Your task to perform on an android device: Go to Wikipedia Image 0: 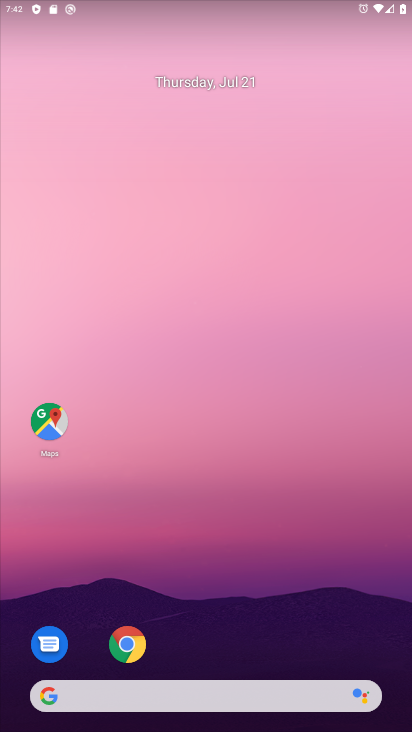
Step 0: drag from (348, 581) to (364, 154)
Your task to perform on an android device: Go to Wikipedia Image 1: 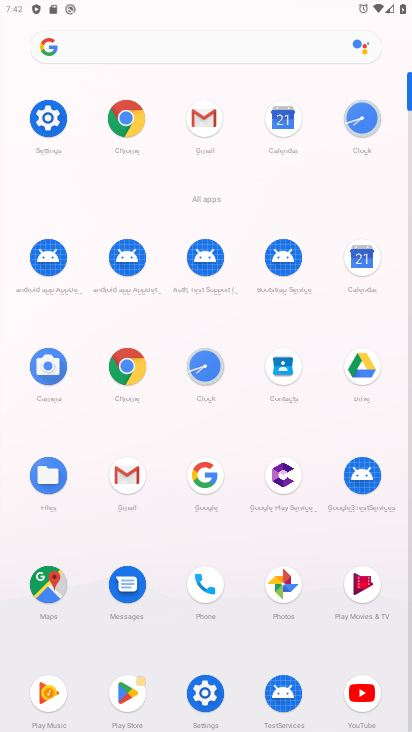
Step 1: click (126, 364)
Your task to perform on an android device: Go to Wikipedia Image 2: 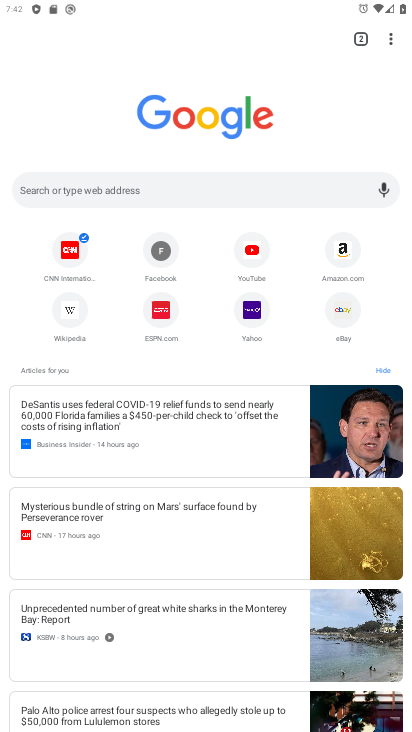
Step 2: click (196, 184)
Your task to perform on an android device: Go to Wikipedia Image 3: 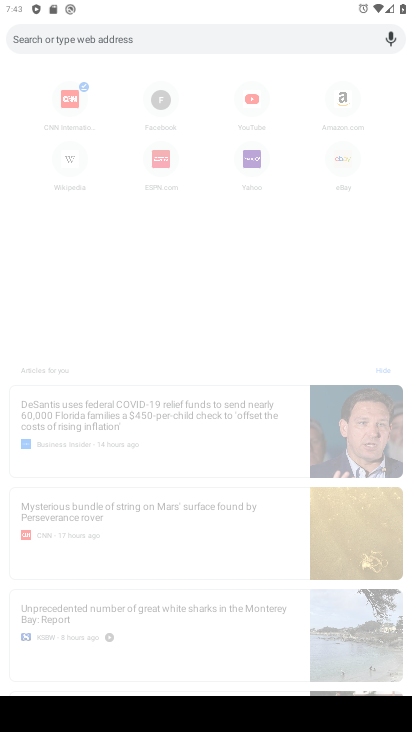
Step 3: type "wikipedia"
Your task to perform on an android device: Go to Wikipedia Image 4: 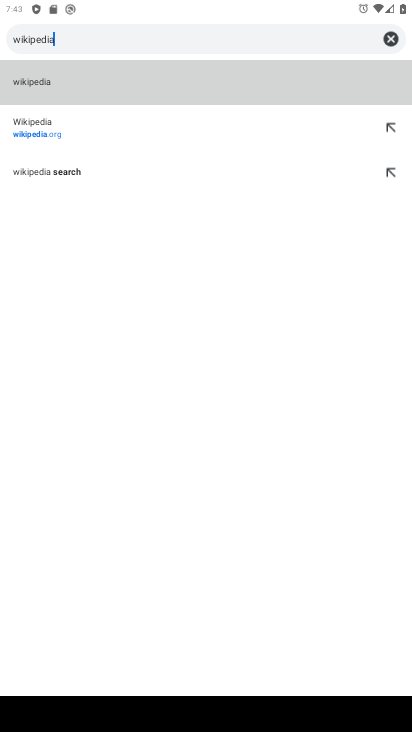
Step 4: click (203, 81)
Your task to perform on an android device: Go to Wikipedia Image 5: 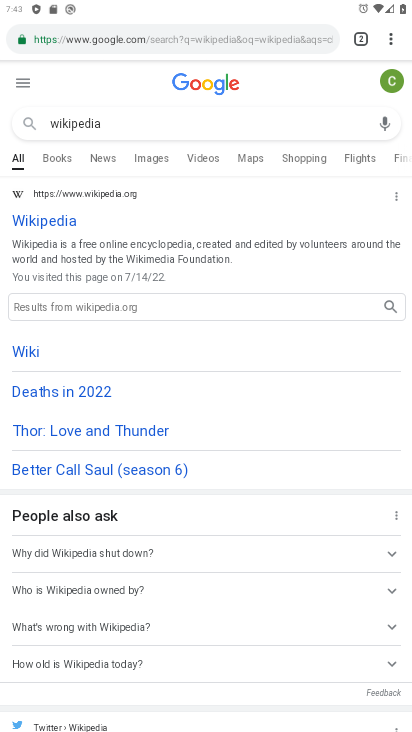
Step 5: task complete